Your task to perform on an android device: change notification settings in the gmail app Image 0: 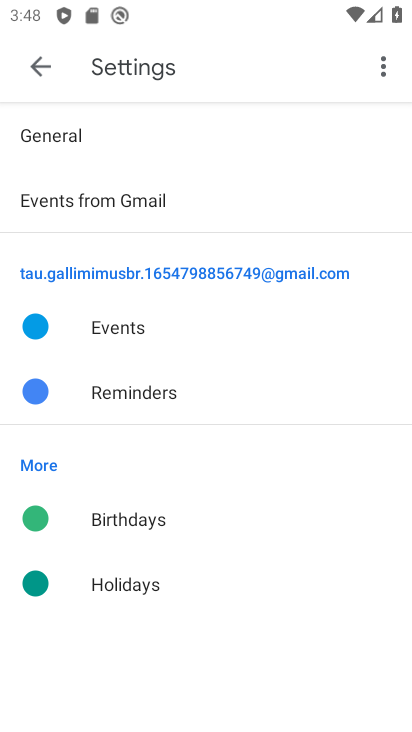
Step 0: press home button
Your task to perform on an android device: change notification settings in the gmail app Image 1: 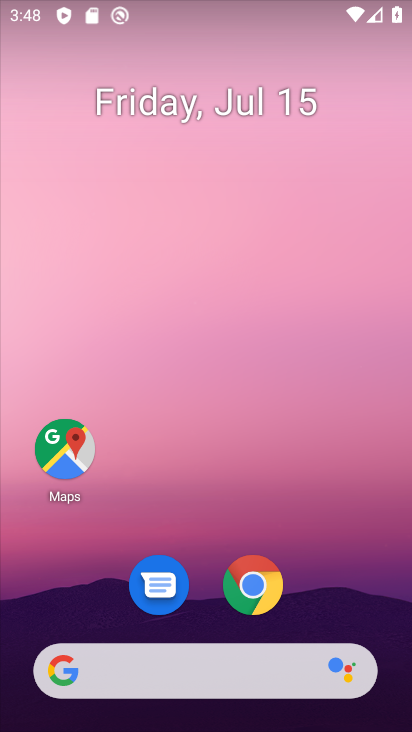
Step 1: drag from (329, 601) to (270, 66)
Your task to perform on an android device: change notification settings in the gmail app Image 2: 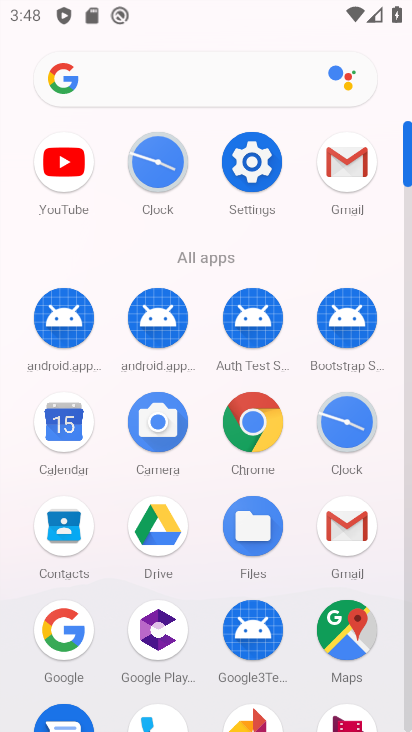
Step 2: click (360, 156)
Your task to perform on an android device: change notification settings in the gmail app Image 3: 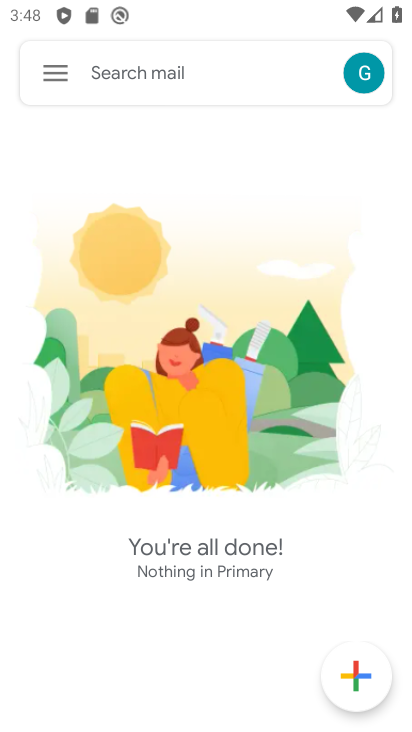
Step 3: click (59, 69)
Your task to perform on an android device: change notification settings in the gmail app Image 4: 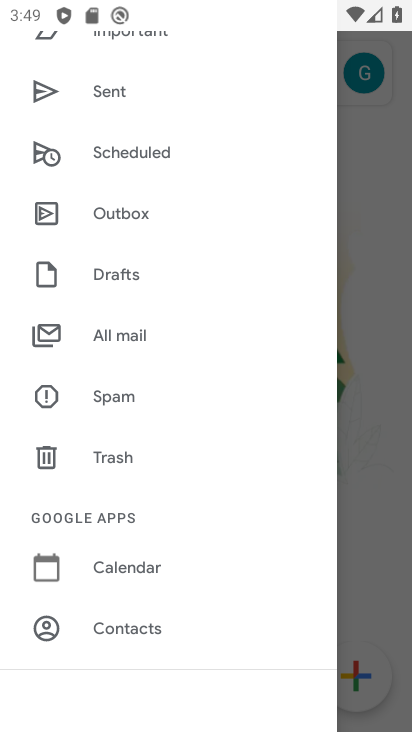
Step 4: drag from (229, 513) to (236, 345)
Your task to perform on an android device: change notification settings in the gmail app Image 5: 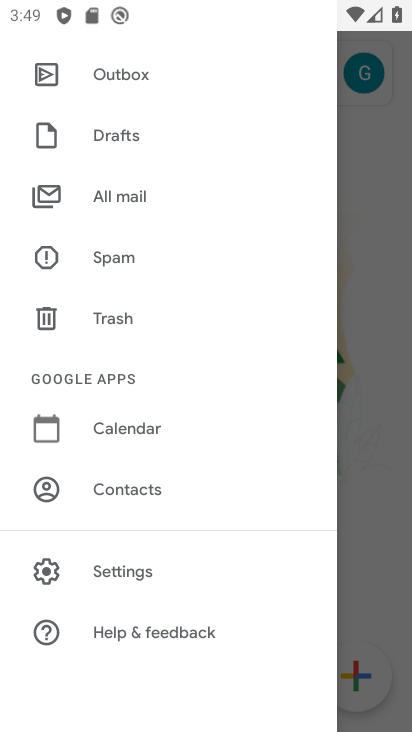
Step 5: click (131, 569)
Your task to perform on an android device: change notification settings in the gmail app Image 6: 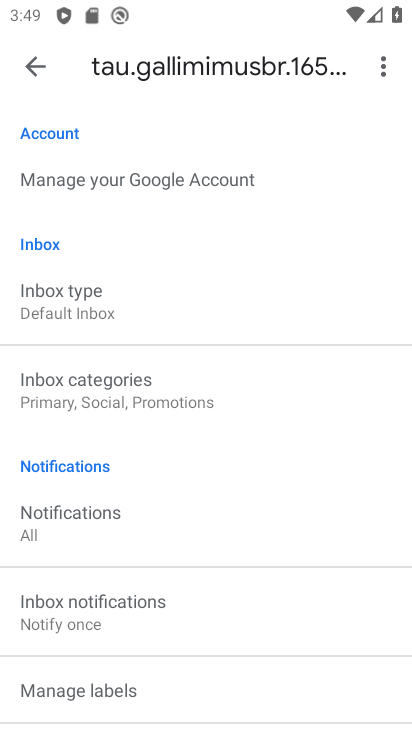
Step 6: drag from (251, 599) to (276, 221)
Your task to perform on an android device: change notification settings in the gmail app Image 7: 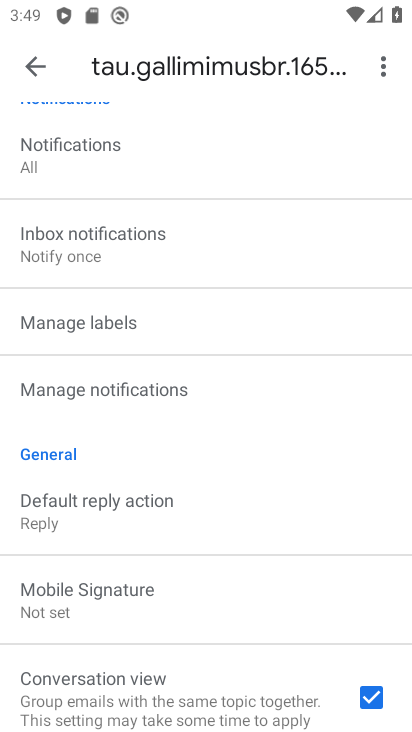
Step 7: click (202, 388)
Your task to perform on an android device: change notification settings in the gmail app Image 8: 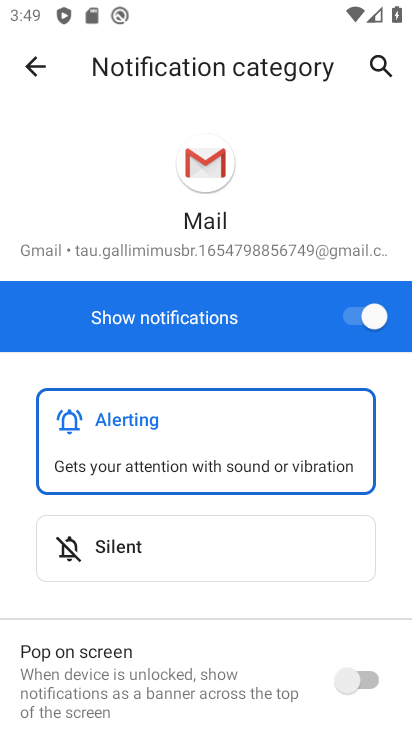
Step 8: click (359, 320)
Your task to perform on an android device: change notification settings in the gmail app Image 9: 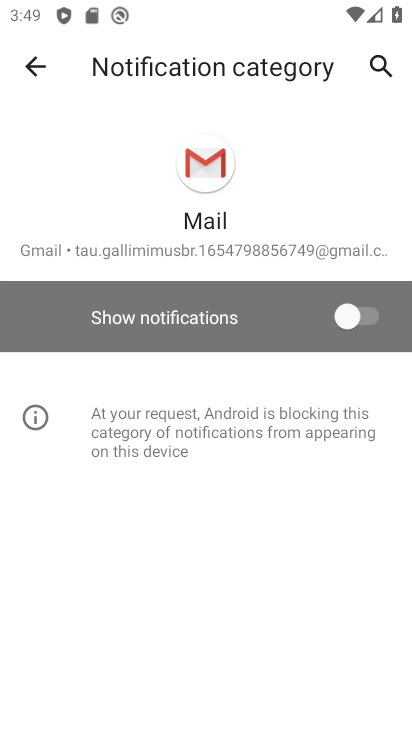
Step 9: task complete